Your task to perform on an android device: Go to Maps Image 0: 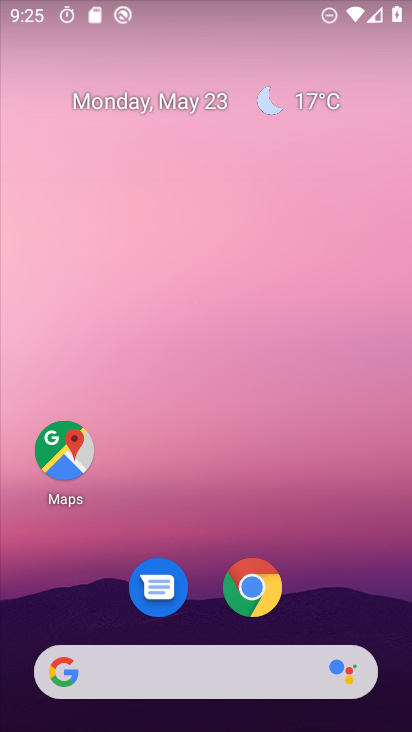
Step 0: click (51, 446)
Your task to perform on an android device: Go to Maps Image 1: 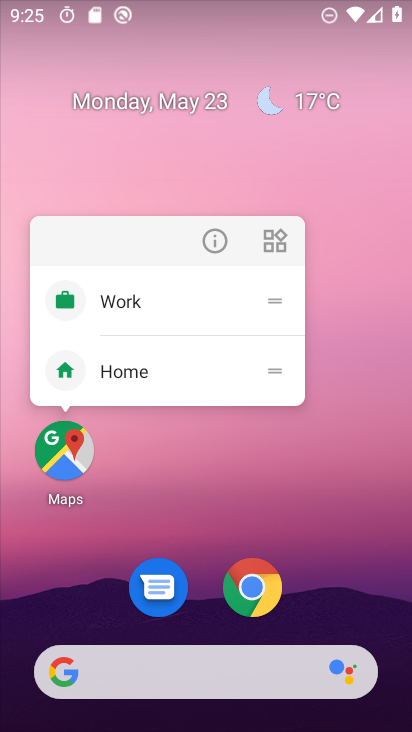
Step 1: click (46, 449)
Your task to perform on an android device: Go to Maps Image 2: 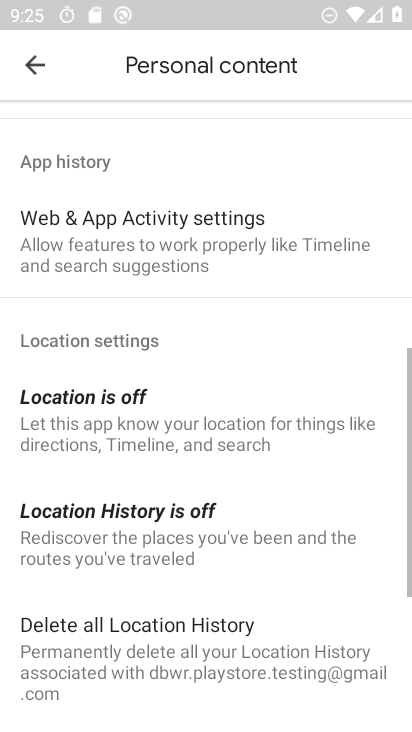
Step 2: click (31, 64)
Your task to perform on an android device: Go to Maps Image 3: 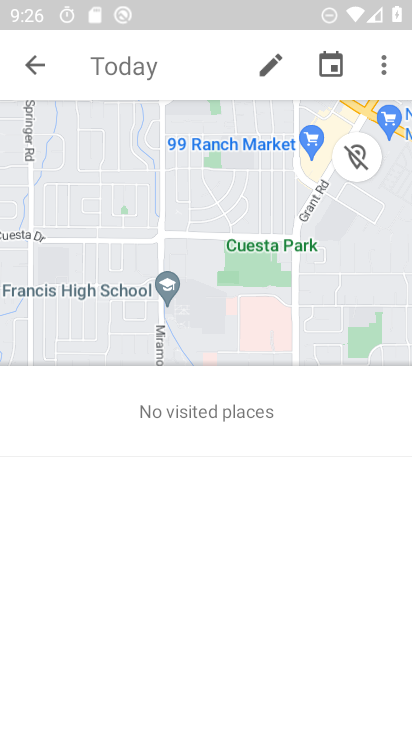
Step 3: task complete